Your task to perform on an android device: set default search engine in the chrome app Image 0: 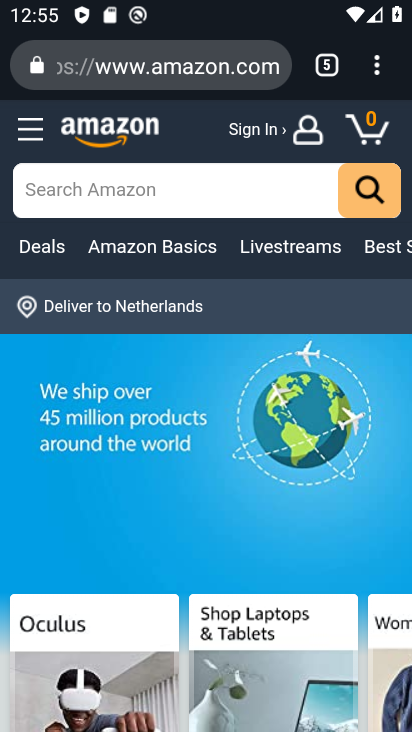
Step 0: drag from (382, 61) to (148, 639)
Your task to perform on an android device: set default search engine in the chrome app Image 1: 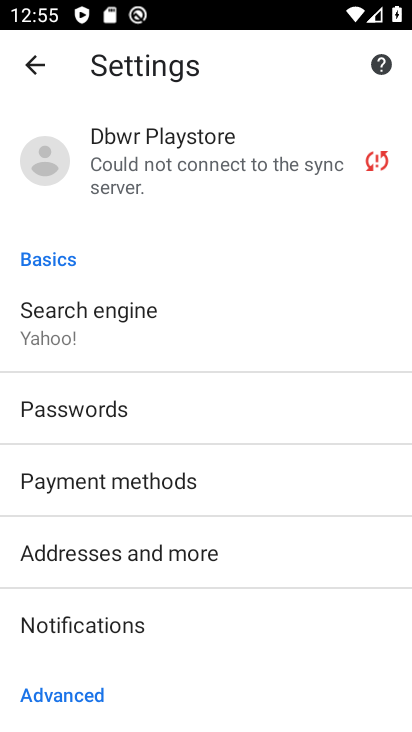
Step 1: click (112, 329)
Your task to perform on an android device: set default search engine in the chrome app Image 2: 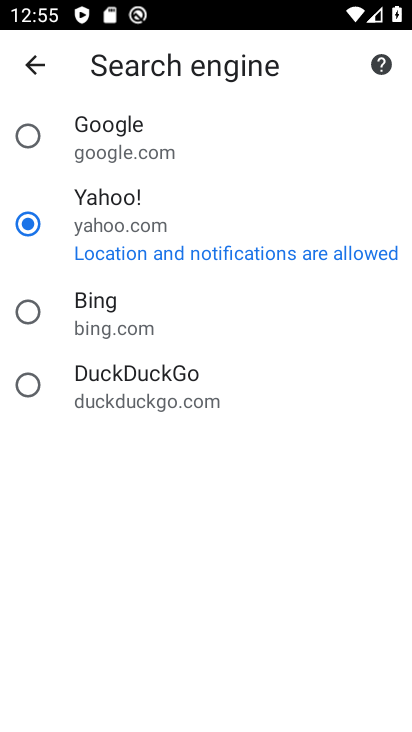
Step 2: click (31, 141)
Your task to perform on an android device: set default search engine in the chrome app Image 3: 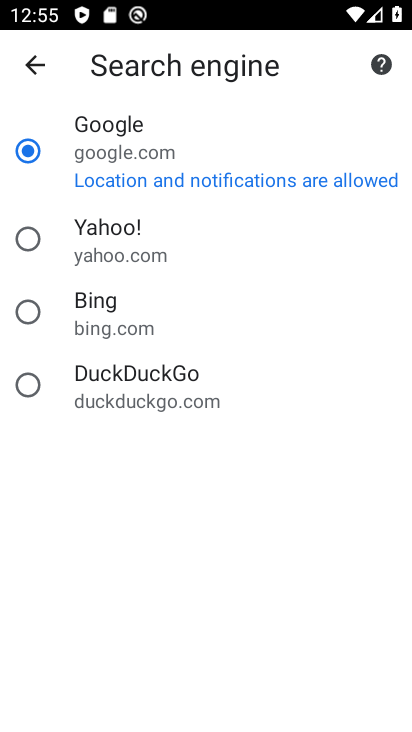
Step 3: task complete